Your task to perform on an android device: turn vacation reply on in the gmail app Image 0: 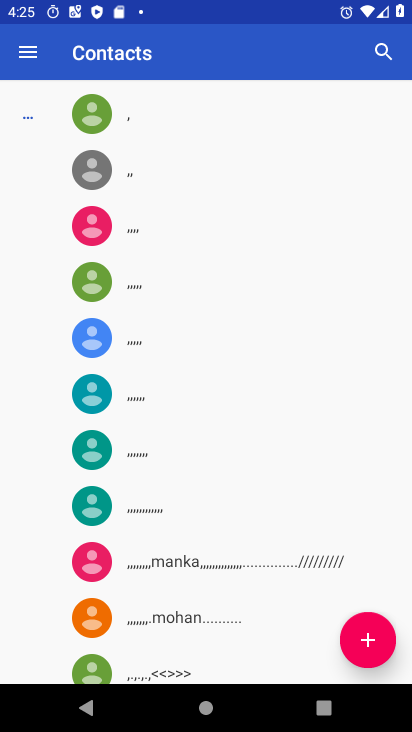
Step 0: press home button
Your task to perform on an android device: turn vacation reply on in the gmail app Image 1: 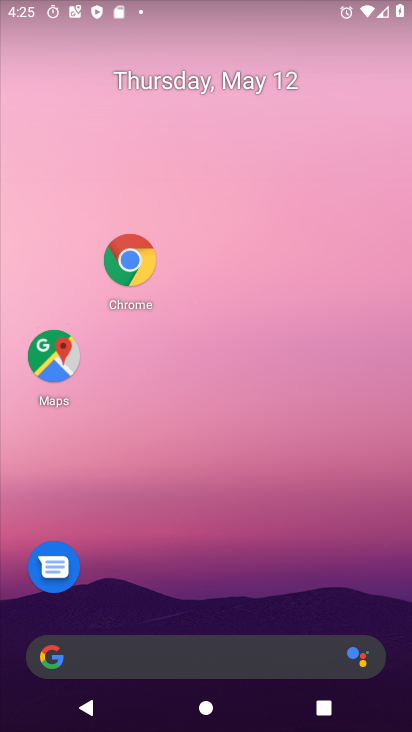
Step 1: drag from (238, 636) to (270, 266)
Your task to perform on an android device: turn vacation reply on in the gmail app Image 2: 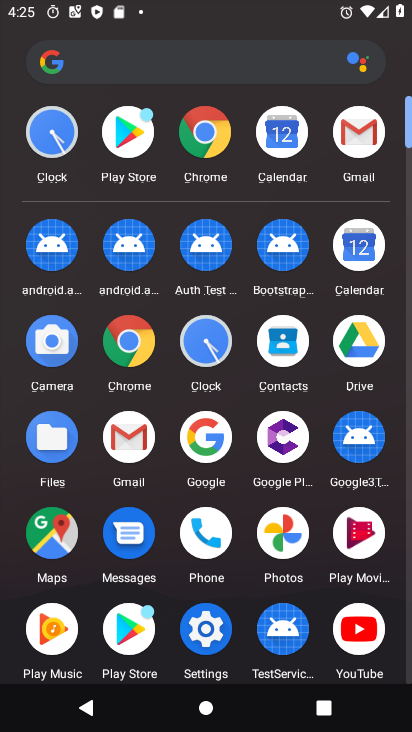
Step 2: click (362, 143)
Your task to perform on an android device: turn vacation reply on in the gmail app Image 3: 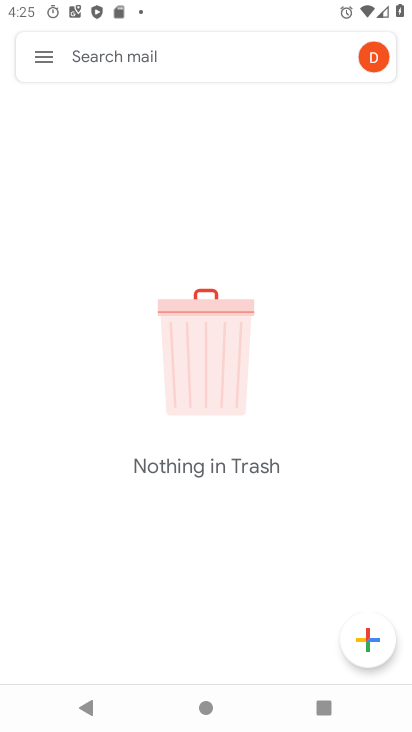
Step 3: click (47, 54)
Your task to perform on an android device: turn vacation reply on in the gmail app Image 4: 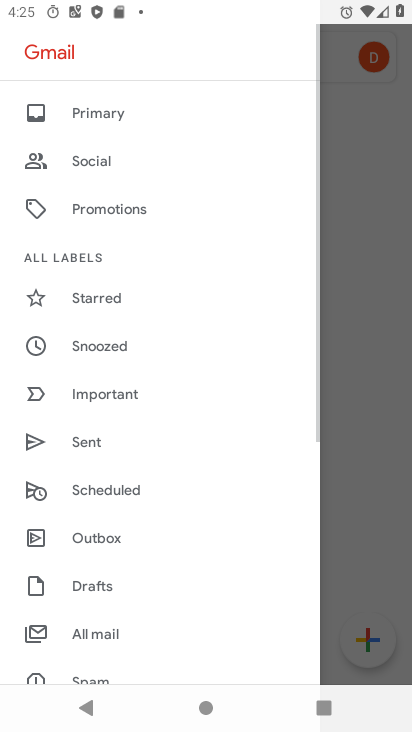
Step 4: drag from (145, 659) to (151, 222)
Your task to perform on an android device: turn vacation reply on in the gmail app Image 5: 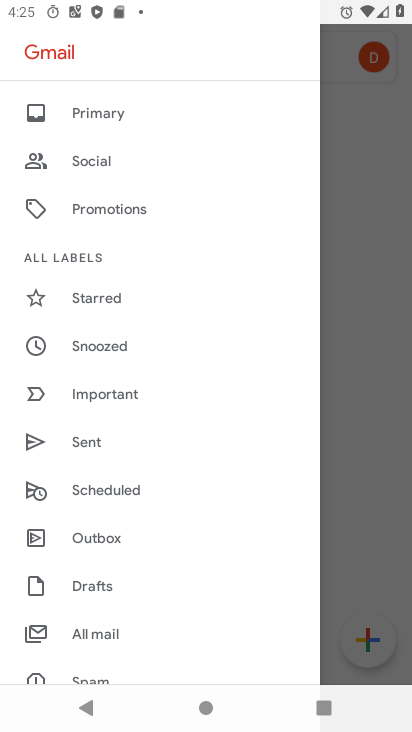
Step 5: drag from (84, 677) to (85, 292)
Your task to perform on an android device: turn vacation reply on in the gmail app Image 6: 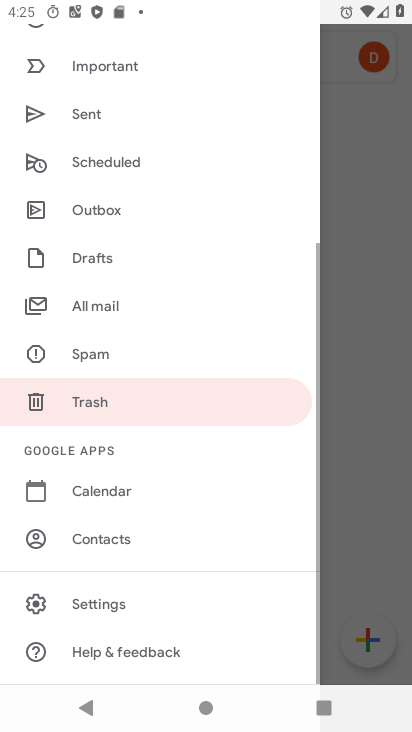
Step 6: click (82, 610)
Your task to perform on an android device: turn vacation reply on in the gmail app Image 7: 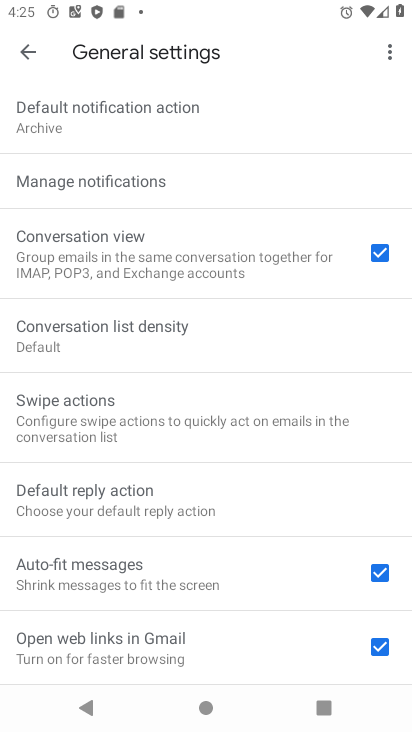
Step 7: drag from (74, 630) to (127, 284)
Your task to perform on an android device: turn vacation reply on in the gmail app Image 8: 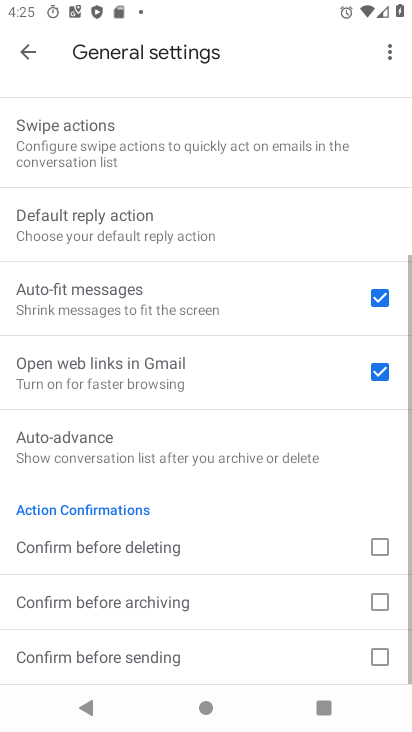
Step 8: click (28, 44)
Your task to perform on an android device: turn vacation reply on in the gmail app Image 9: 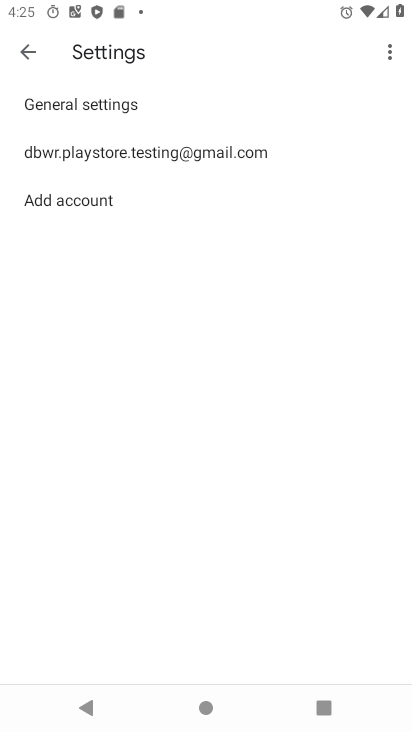
Step 9: click (97, 147)
Your task to perform on an android device: turn vacation reply on in the gmail app Image 10: 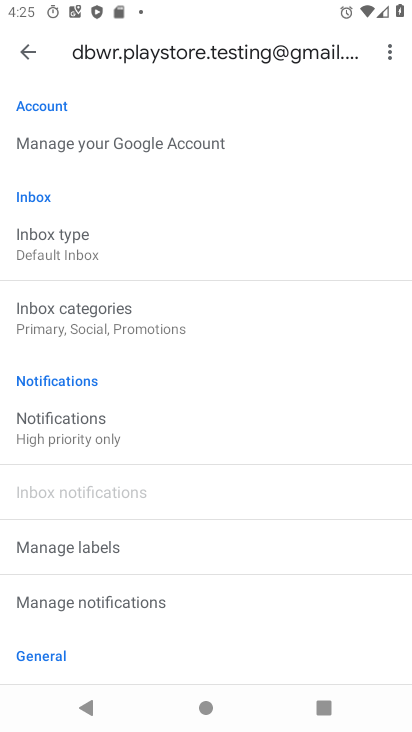
Step 10: drag from (132, 645) to (165, 310)
Your task to perform on an android device: turn vacation reply on in the gmail app Image 11: 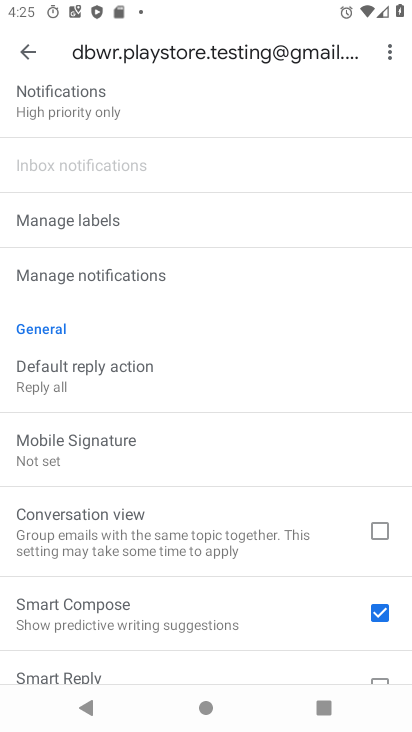
Step 11: drag from (125, 646) to (147, 370)
Your task to perform on an android device: turn vacation reply on in the gmail app Image 12: 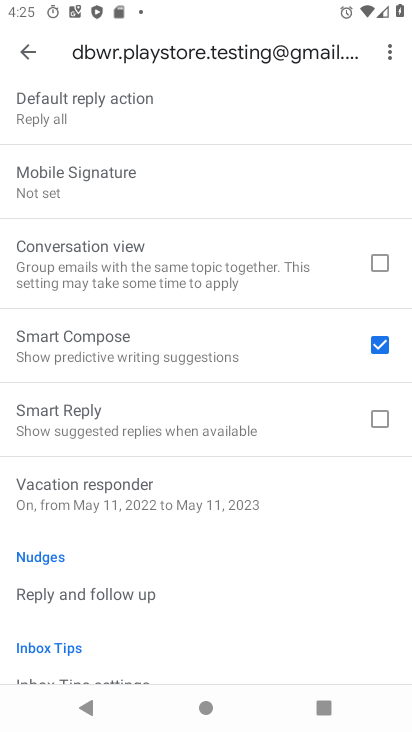
Step 12: click (98, 484)
Your task to perform on an android device: turn vacation reply on in the gmail app Image 13: 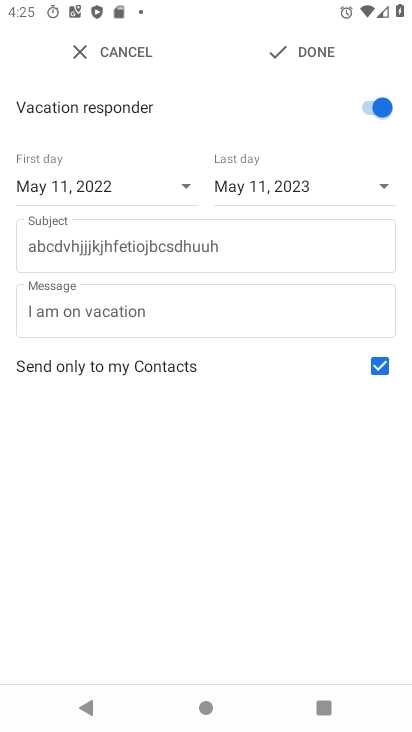
Step 13: click (321, 45)
Your task to perform on an android device: turn vacation reply on in the gmail app Image 14: 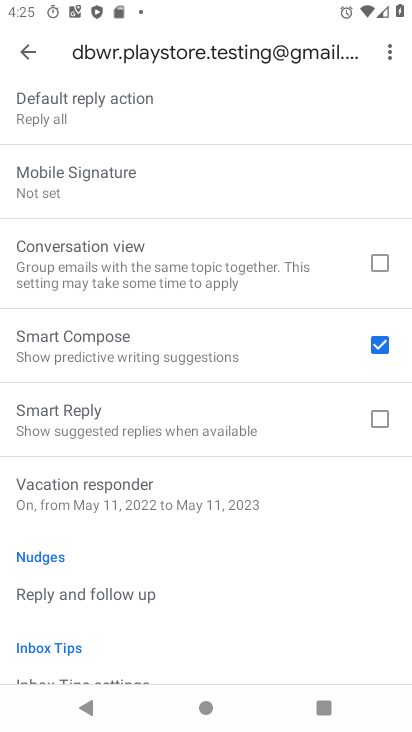
Step 14: task complete